Your task to perform on an android device: search for starred emails in the gmail app Image 0: 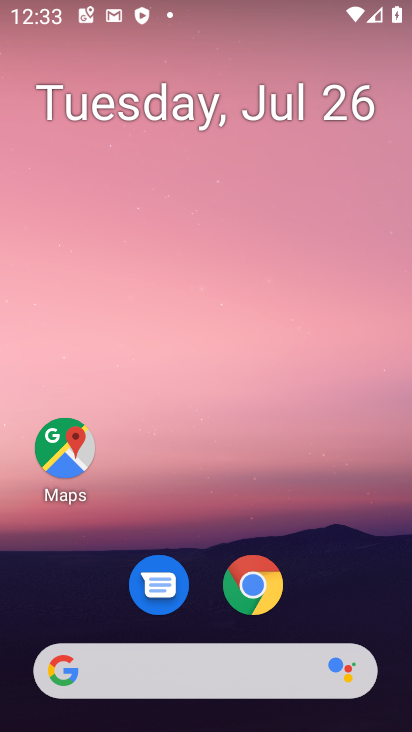
Step 0: press home button
Your task to perform on an android device: search for starred emails in the gmail app Image 1: 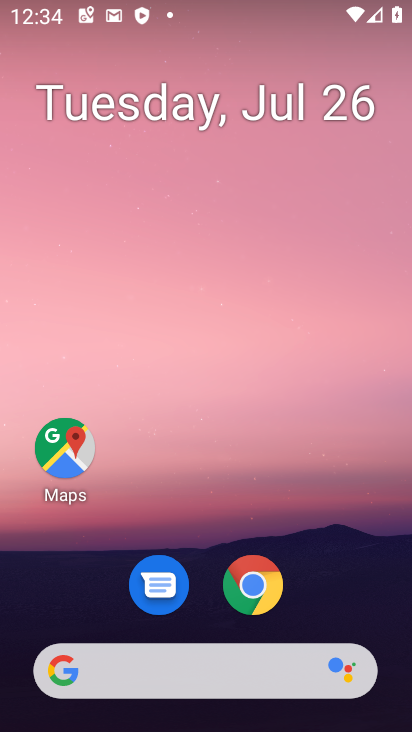
Step 1: drag from (258, 499) to (300, 216)
Your task to perform on an android device: search for starred emails in the gmail app Image 2: 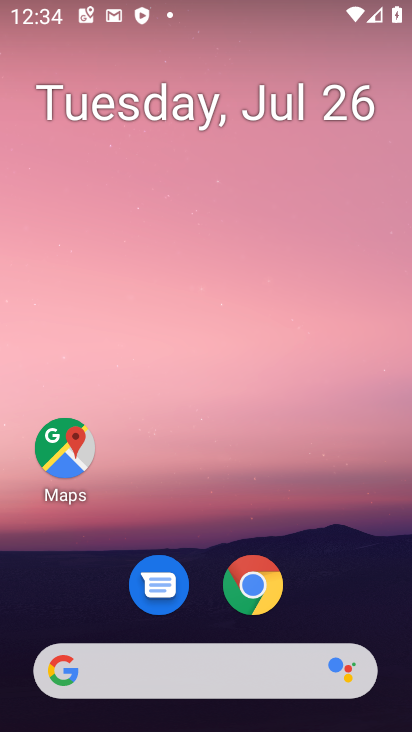
Step 2: drag from (159, 670) to (280, 160)
Your task to perform on an android device: search for starred emails in the gmail app Image 3: 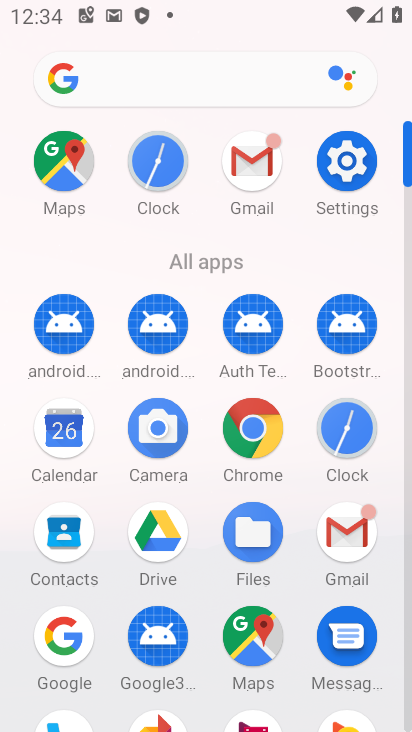
Step 3: click (251, 173)
Your task to perform on an android device: search for starred emails in the gmail app Image 4: 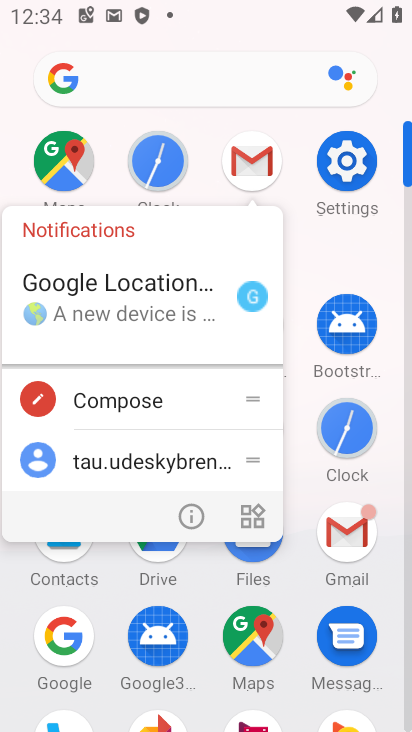
Step 4: click (257, 151)
Your task to perform on an android device: search for starred emails in the gmail app Image 5: 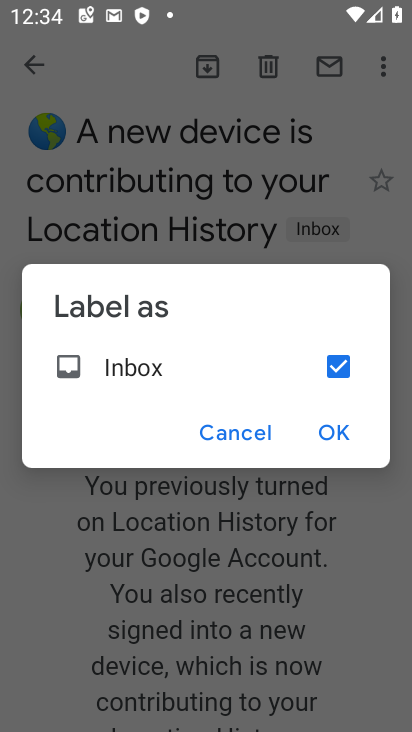
Step 5: click (340, 433)
Your task to perform on an android device: search for starred emails in the gmail app Image 6: 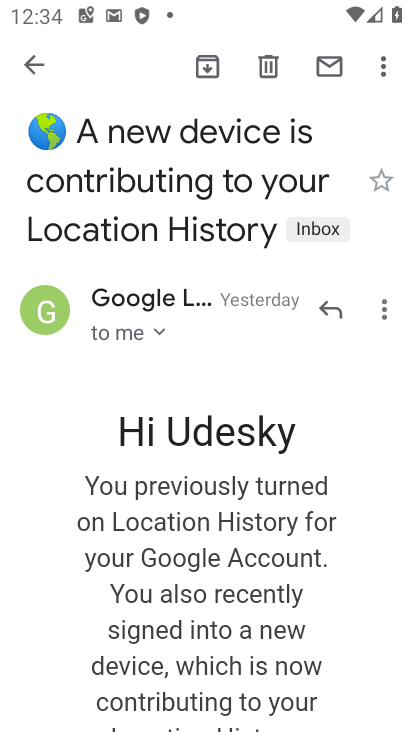
Step 6: click (32, 59)
Your task to perform on an android device: search for starred emails in the gmail app Image 7: 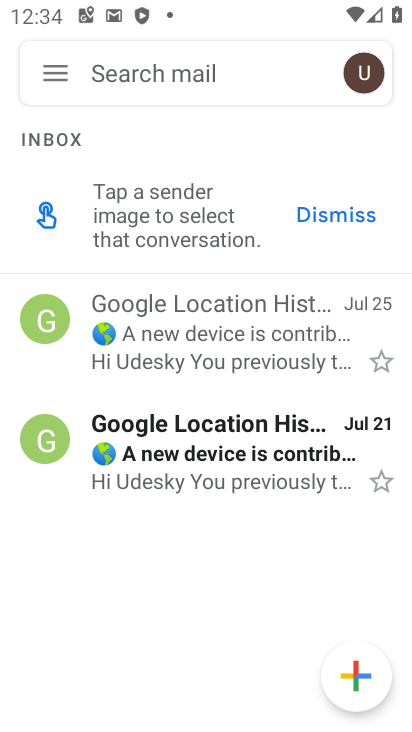
Step 7: click (57, 75)
Your task to perform on an android device: search for starred emails in the gmail app Image 8: 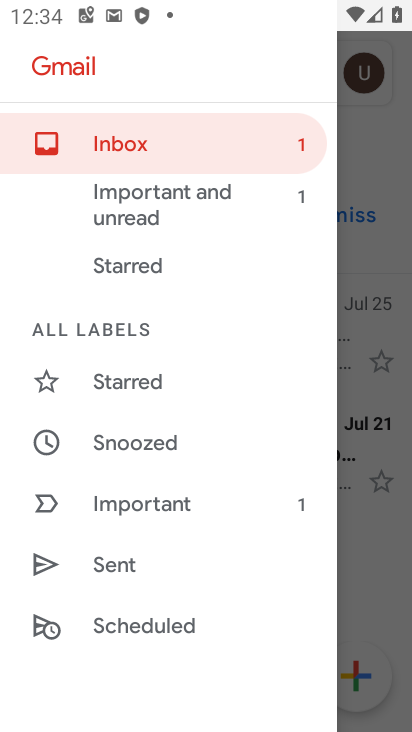
Step 8: click (139, 385)
Your task to perform on an android device: search for starred emails in the gmail app Image 9: 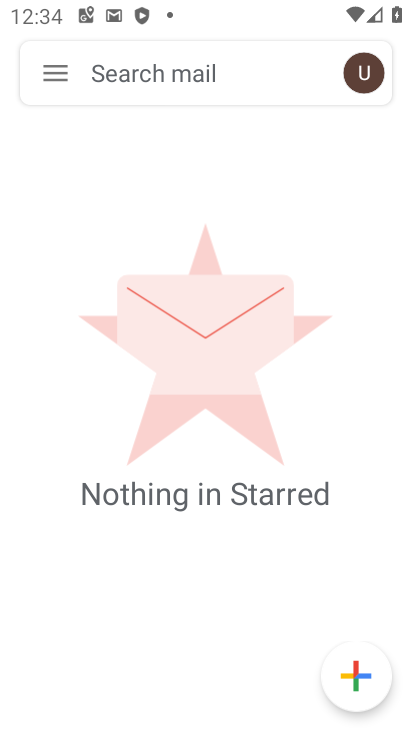
Step 9: task complete